Your task to perform on an android device: turn notification dots on Image 0: 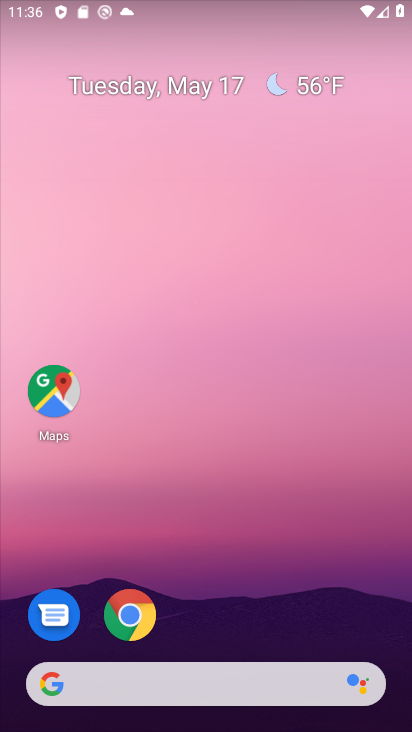
Step 0: drag from (255, 665) to (236, 19)
Your task to perform on an android device: turn notification dots on Image 1: 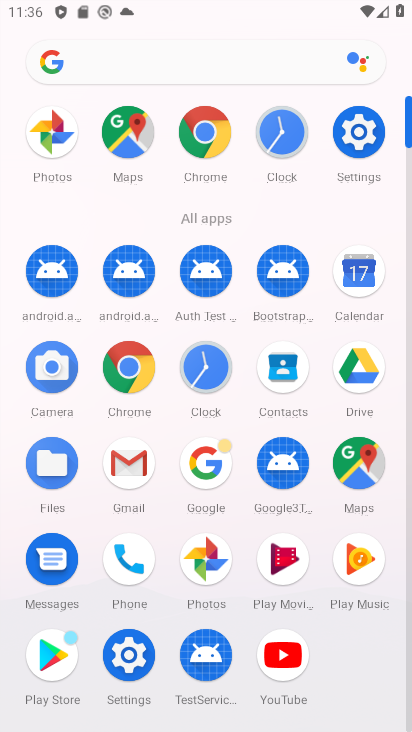
Step 1: click (138, 645)
Your task to perform on an android device: turn notification dots on Image 2: 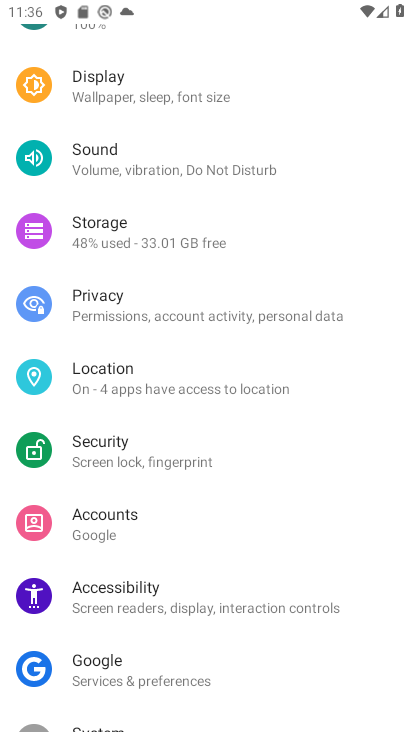
Step 2: drag from (173, 588) to (166, 164)
Your task to perform on an android device: turn notification dots on Image 3: 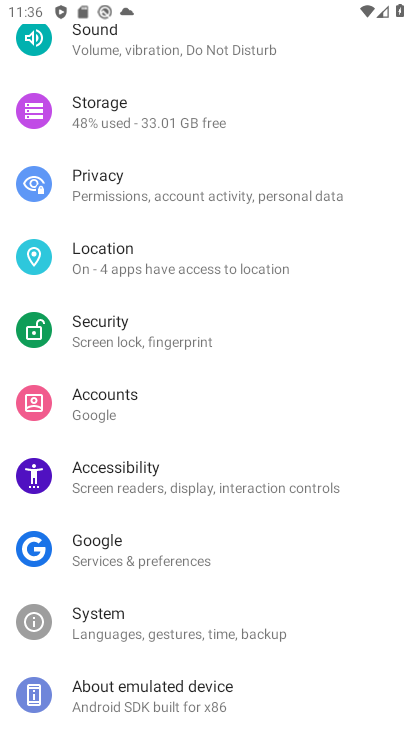
Step 3: drag from (165, 142) to (190, 689)
Your task to perform on an android device: turn notification dots on Image 4: 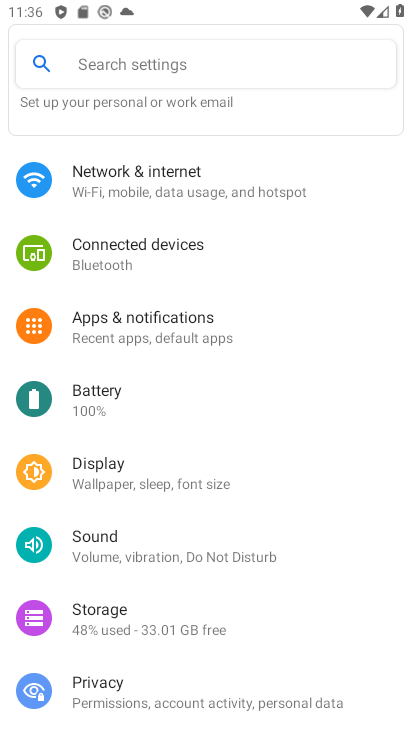
Step 4: click (225, 320)
Your task to perform on an android device: turn notification dots on Image 5: 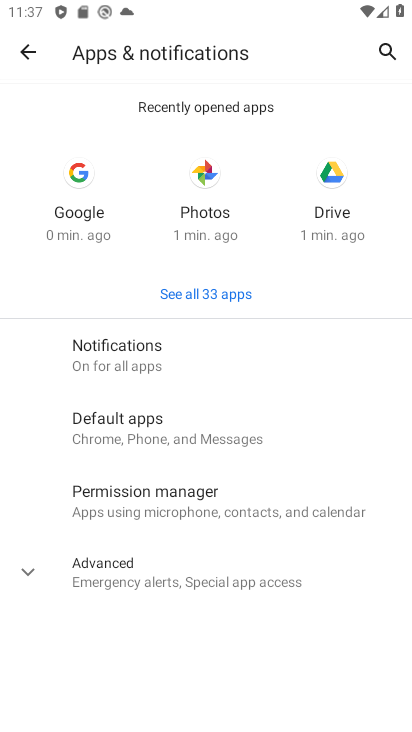
Step 5: click (189, 583)
Your task to perform on an android device: turn notification dots on Image 6: 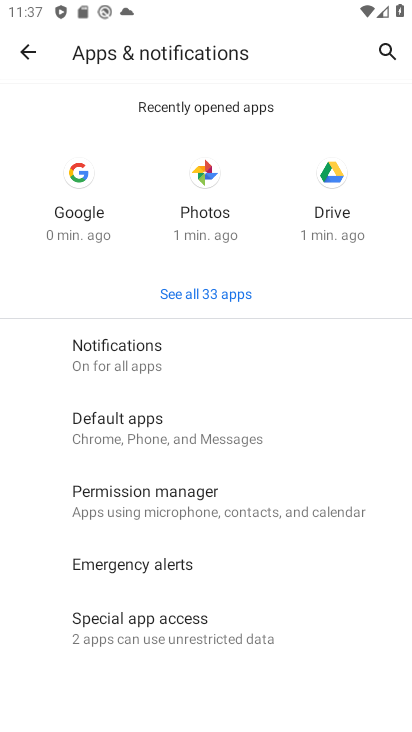
Step 6: drag from (210, 621) to (212, 213)
Your task to perform on an android device: turn notification dots on Image 7: 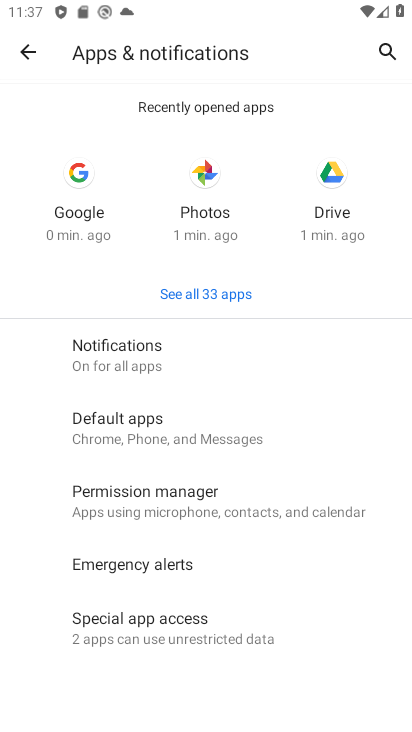
Step 7: click (222, 353)
Your task to perform on an android device: turn notification dots on Image 8: 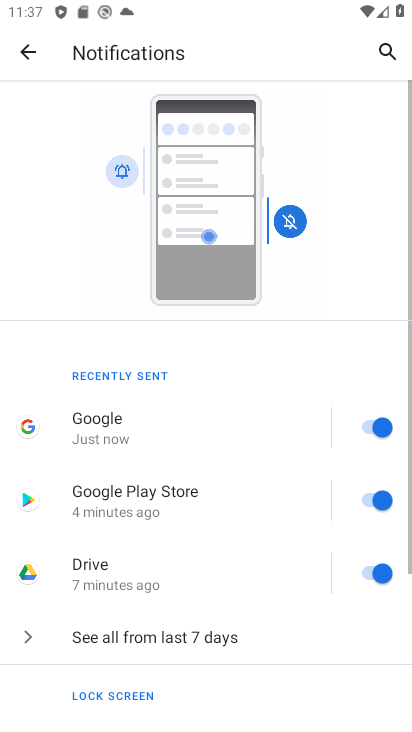
Step 8: drag from (220, 521) to (218, 163)
Your task to perform on an android device: turn notification dots on Image 9: 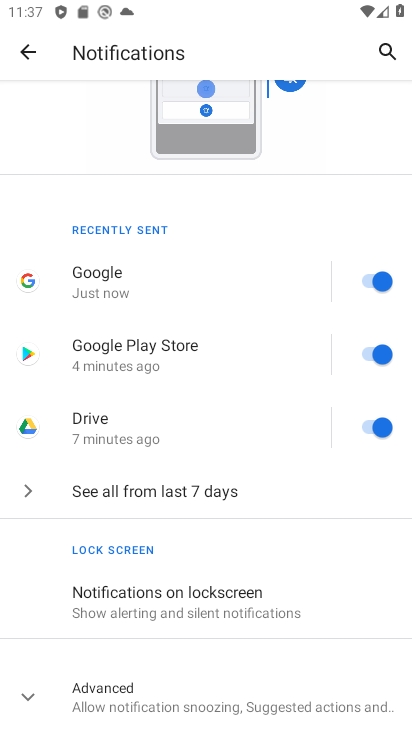
Step 9: click (230, 689)
Your task to perform on an android device: turn notification dots on Image 10: 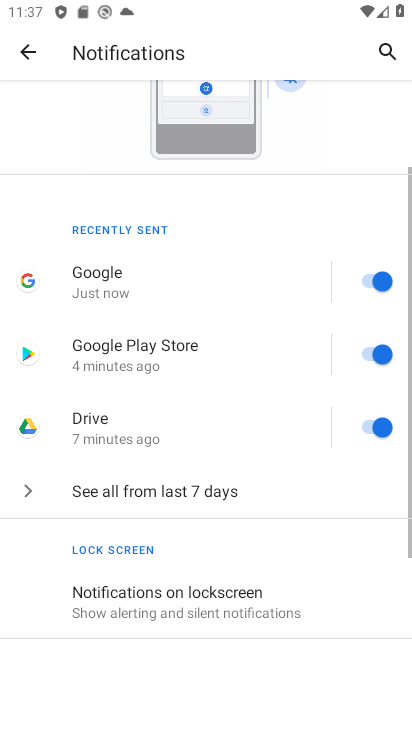
Step 10: task complete